Your task to perform on an android device: Clear the cart on walmart. Add logitech g910 to the cart on walmart Image 0: 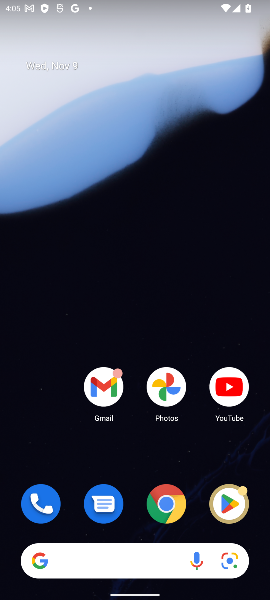
Step 0: click (121, 562)
Your task to perform on an android device: Clear the cart on walmart. Add logitech g910 to the cart on walmart Image 1: 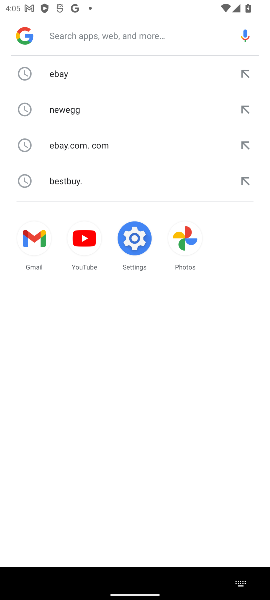
Step 1: type "walmart"
Your task to perform on an android device: Clear the cart on walmart. Add logitech g910 to the cart on walmart Image 2: 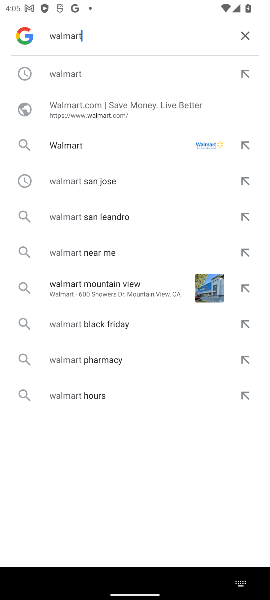
Step 2: click (75, 70)
Your task to perform on an android device: Clear the cart on walmart. Add logitech g910 to the cart on walmart Image 3: 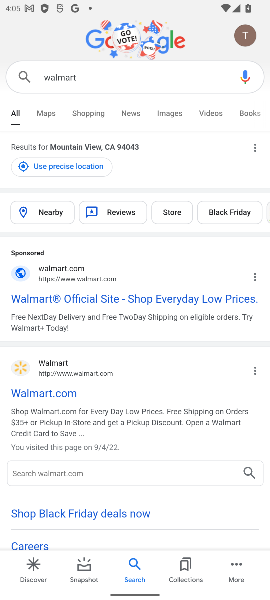
Step 3: click (35, 390)
Your task to perform on an android device: Clear the cart on walmart. Add logitech g910 to the cart on walmart Image 4: 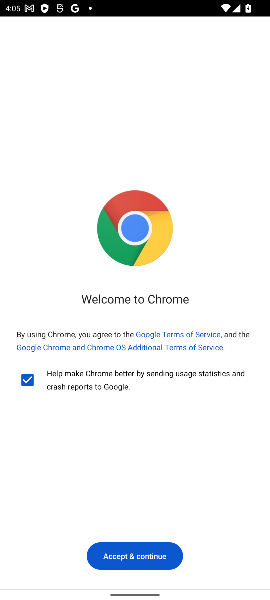
Step 4: click (137, 554)
Your task to perform on an android device: Clear the cart on walmart. Add logitech g910 to the cart on walmart Image 5: 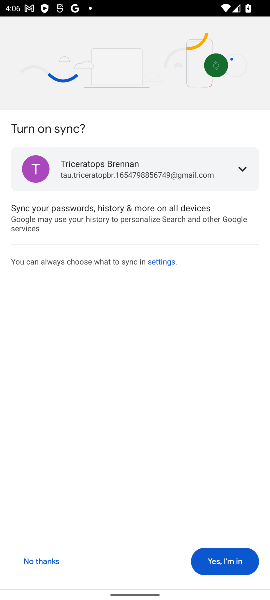
Step 5: click (227, 553)
Your task to perform on an android device: Clear the cart on walmart. Add logitech g910 to the cart on walmart Image 6: 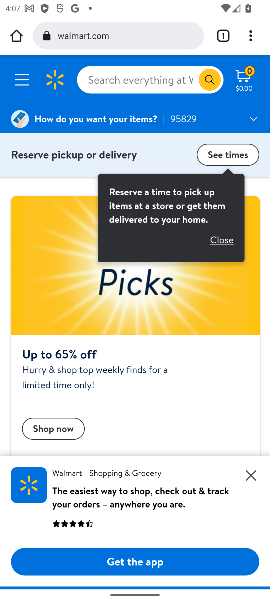
Step 6: click (138, 78)
Your task to perform on an android device: Clear the cart on walmart. Add logitech g910 to the cart on walmart Image 7: 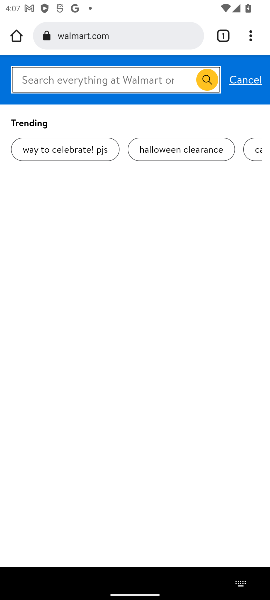
Step 7: type " logitech g910"
Your task to perform on an android device: Clear the cart on walmart. Add logitech g910 to the cart on walmart Image 8: 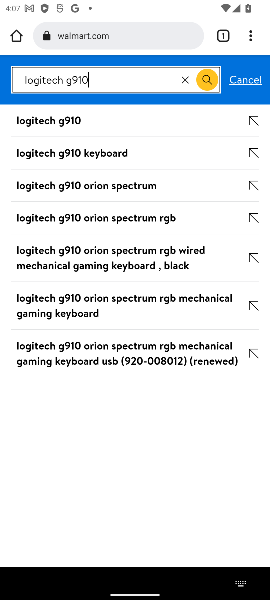
Step 8: click (69, 120)
Your task to perform on an android device: Clear the cart on walmart. Add logitech g910 to the cart on walmart Image 9: 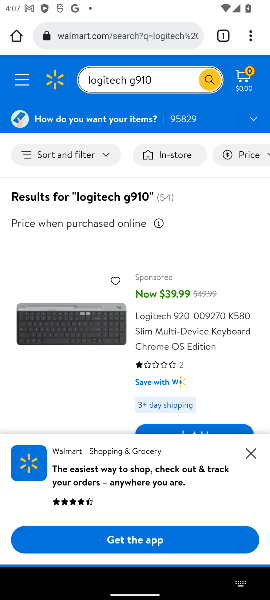
Step 9: click (251, 449)
Your task to perform on an android device: Clear the cart on walmart. Add logitech g910 to the cart on walmart Image 10: 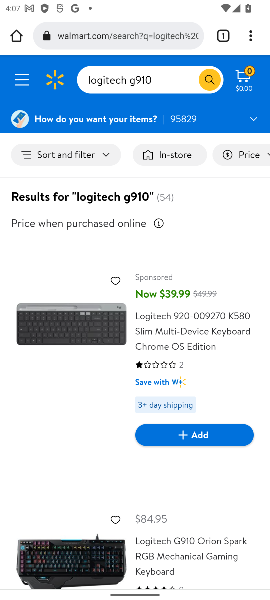
Step 10: click (203, 429)
Your task to perform on an android device: Clear the cart on walmart. Add logitech g910 to the cart on walmart Image 11: 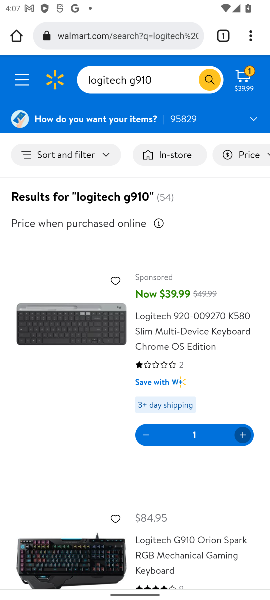
Step 11: task complete